Your task to perform on an android device: Open location settings Image 0: 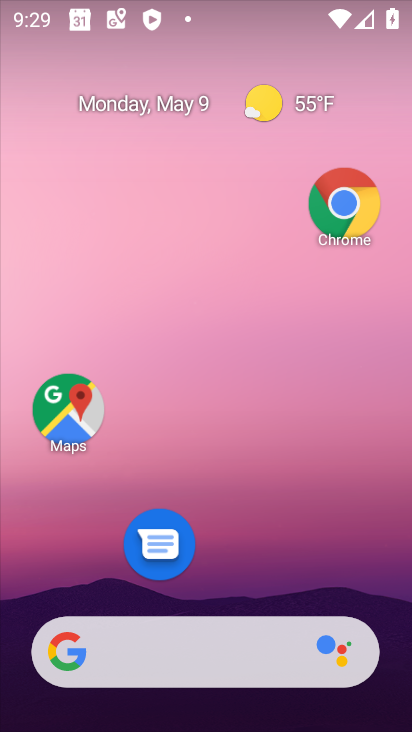
Step 0: drag from (234, 586) to (223, 167)
Your task to perform on an android device: Open location settings Image 1: 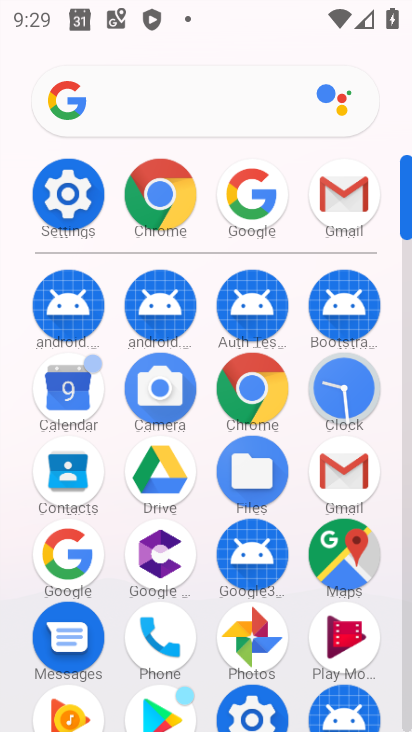
Step 1: click (86, 187)
Your task to perform on an android device: Open location settings Image 2: 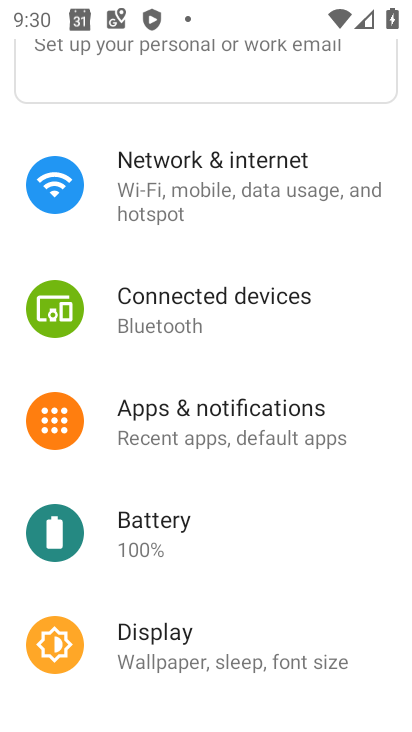
Step 2: drag from (234, 611) to (222, 84)
Your task to perform on an android device: Open location settings Image 3: 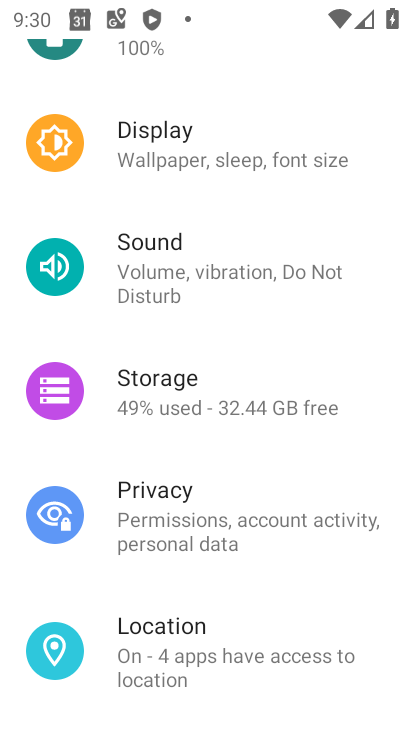
Step 3: click (205, 621)
Your task to perform on an android device: Open location settings Image 4: 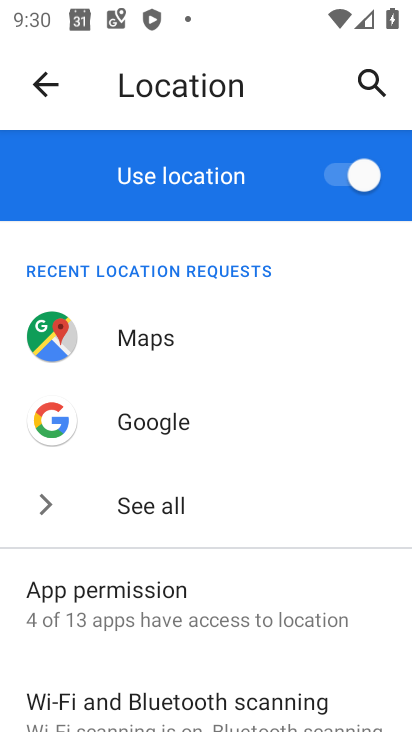
Step 4: task complete